Your task to perform on an android device: Open Yahoo.com Image 0: 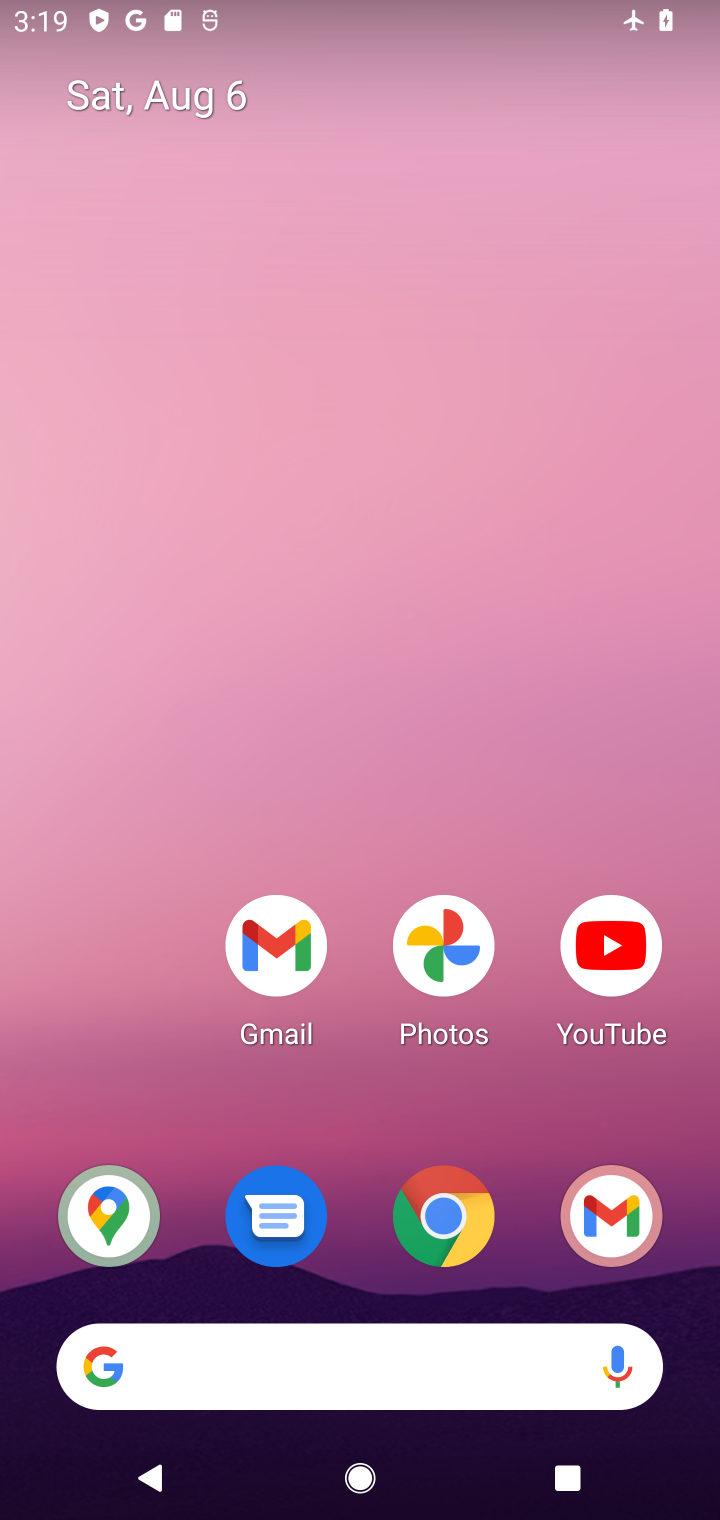
Step 0: click (444, 1215)
Your task to perform on an android device: Open Yahoo.com Image 1: 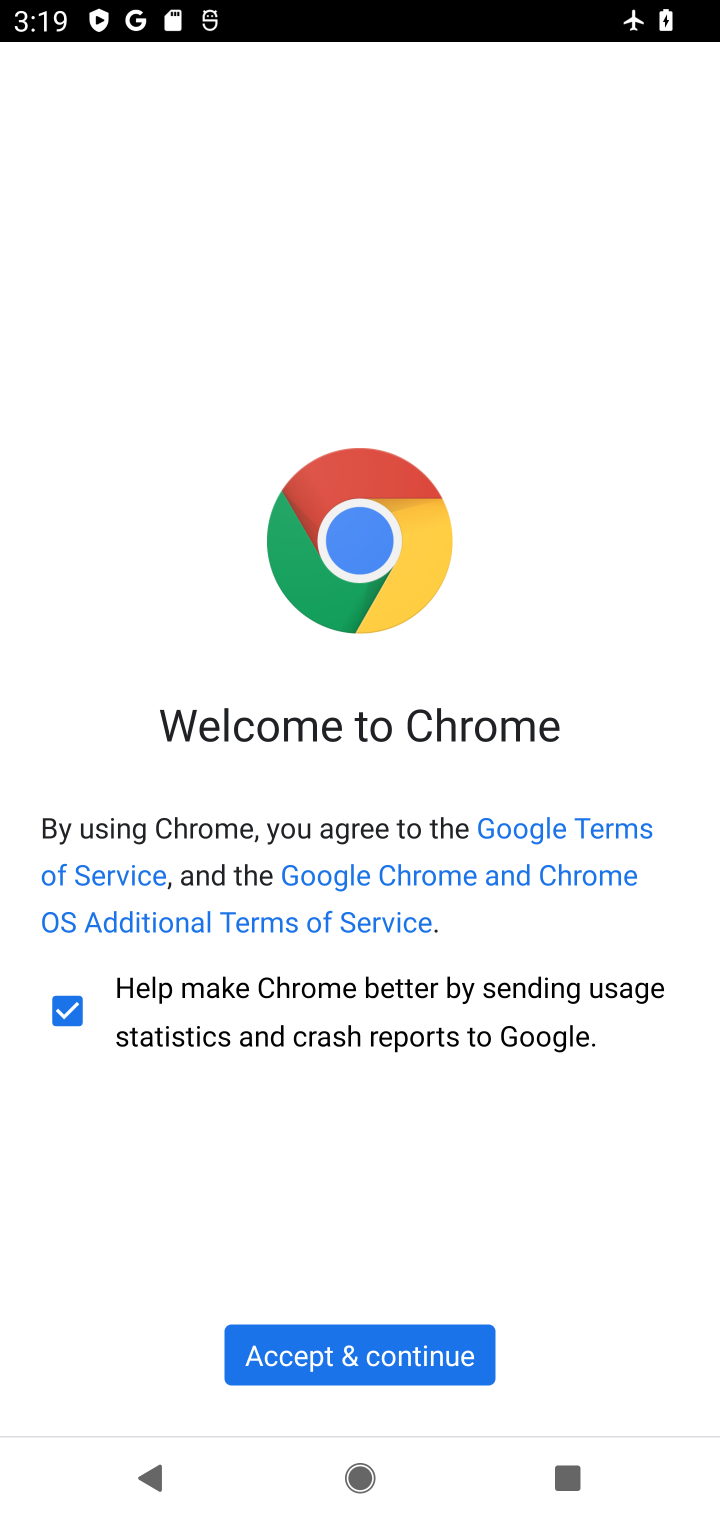
Step 1: click (422, 1362)
Your task to perform on an android device: Open Yahoo.com Image 2: 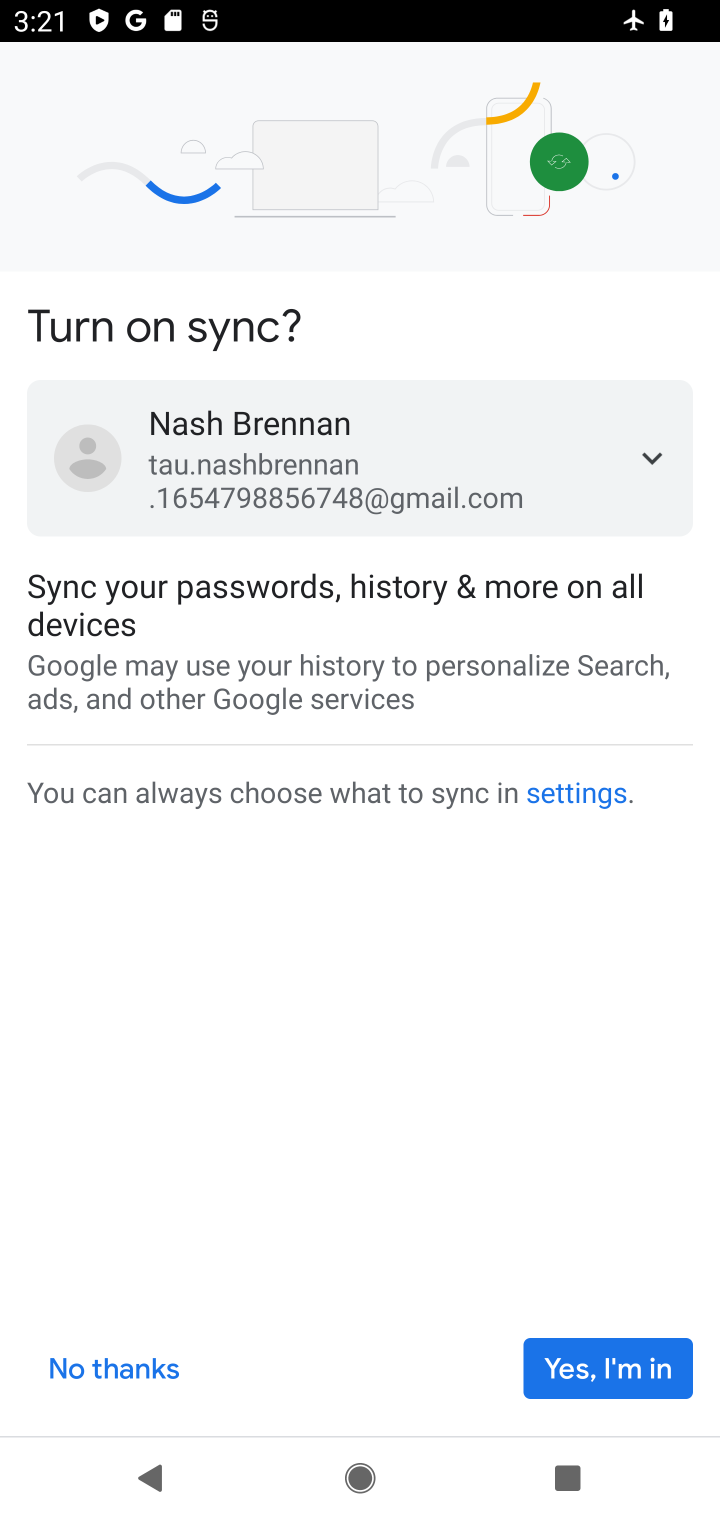
Step 2: click (587, 1390)
Your task to perform on an android device: Open Yahoo.com Image 3: 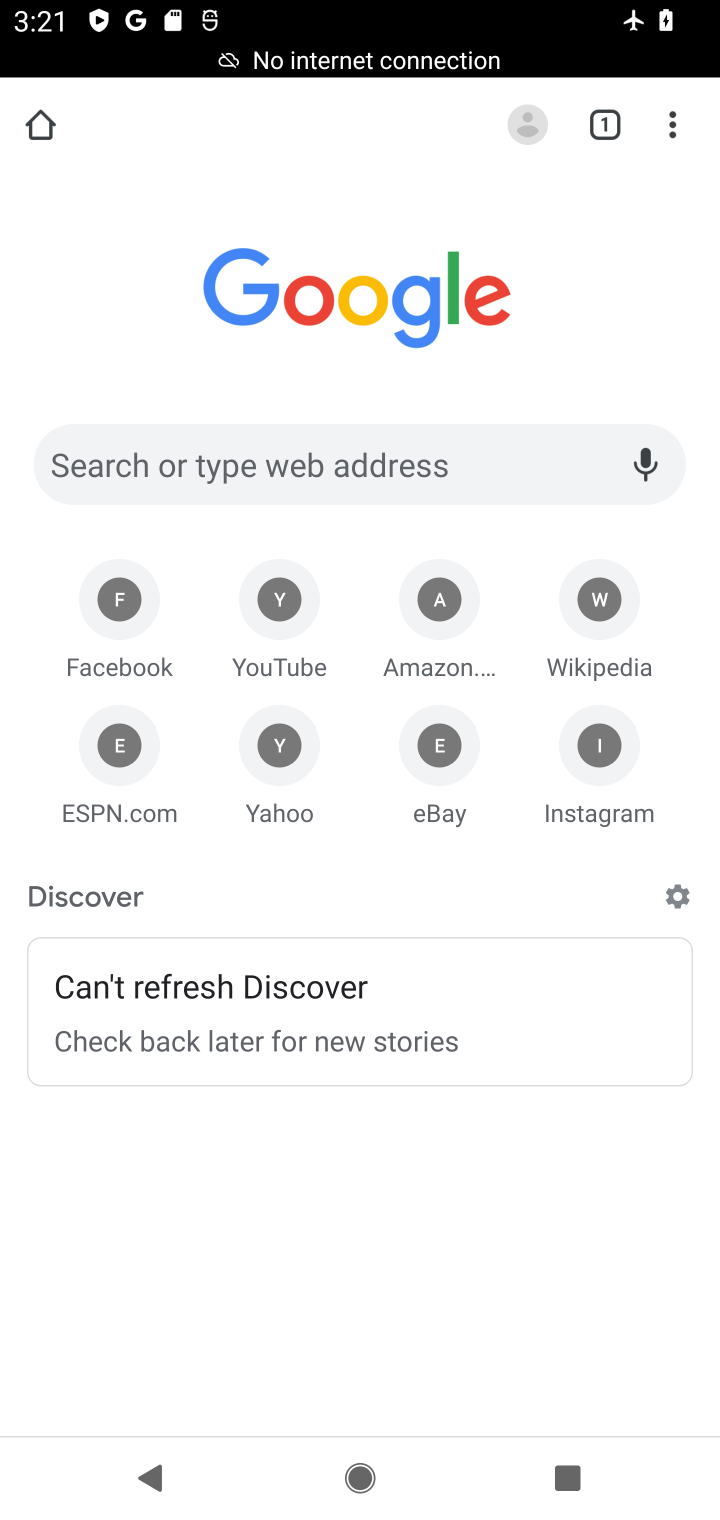
Step 3: click (306, 761)
Your task to perform on an android device: Open Yahoo.com Image 4: 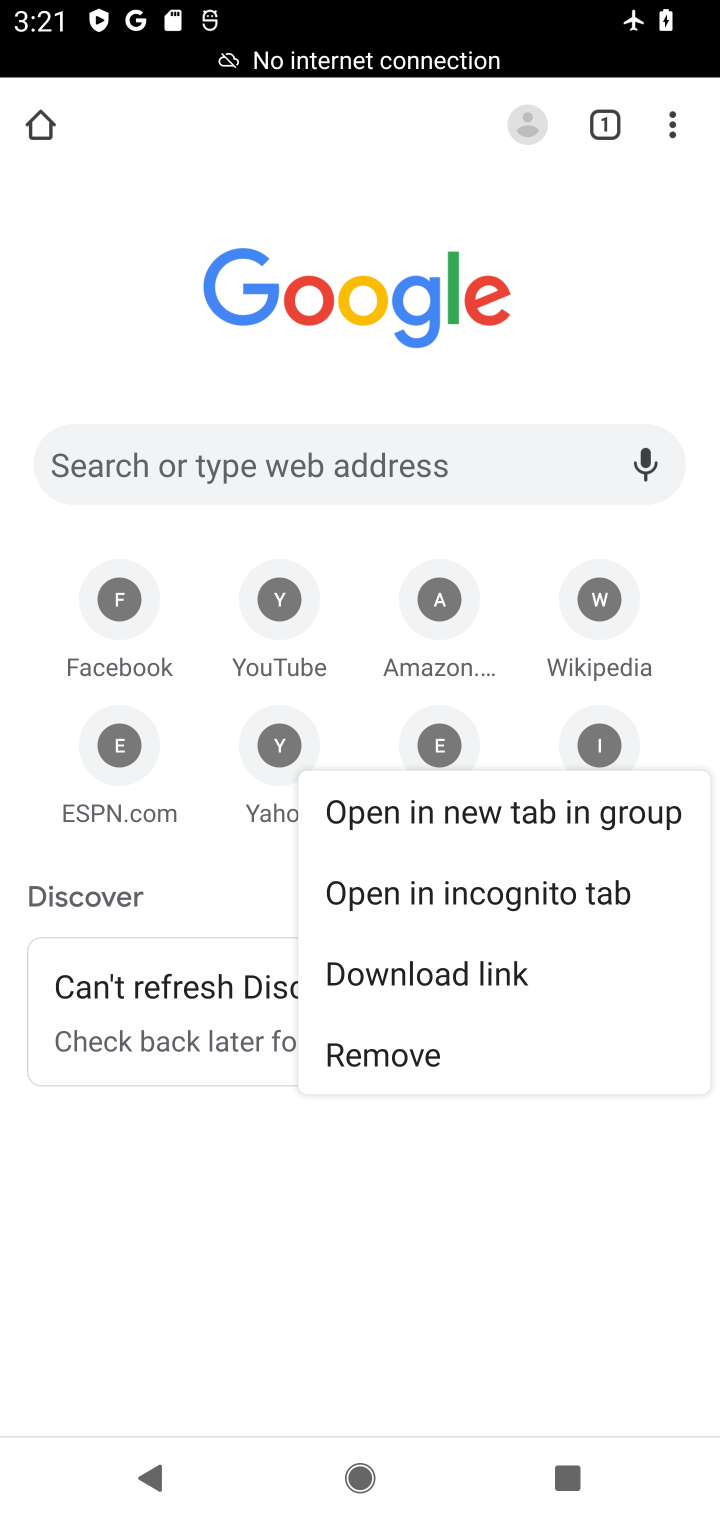
Step 4: click (284, 757)
Your task to perform on an android device: Open Yahoo.com Image 5: 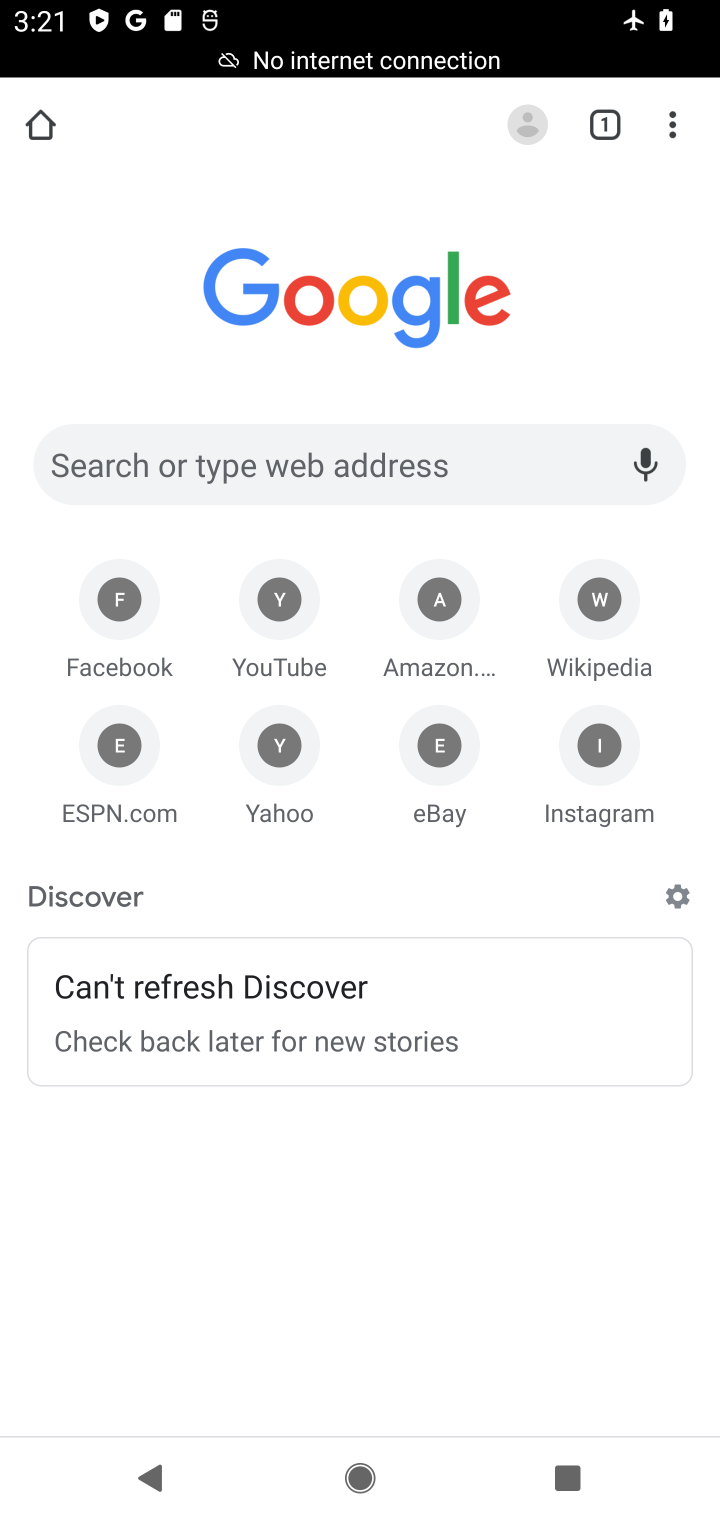
Step 5: click (266, 765)
Your task to perform on an android device: Open Yahoo.com Image 6: 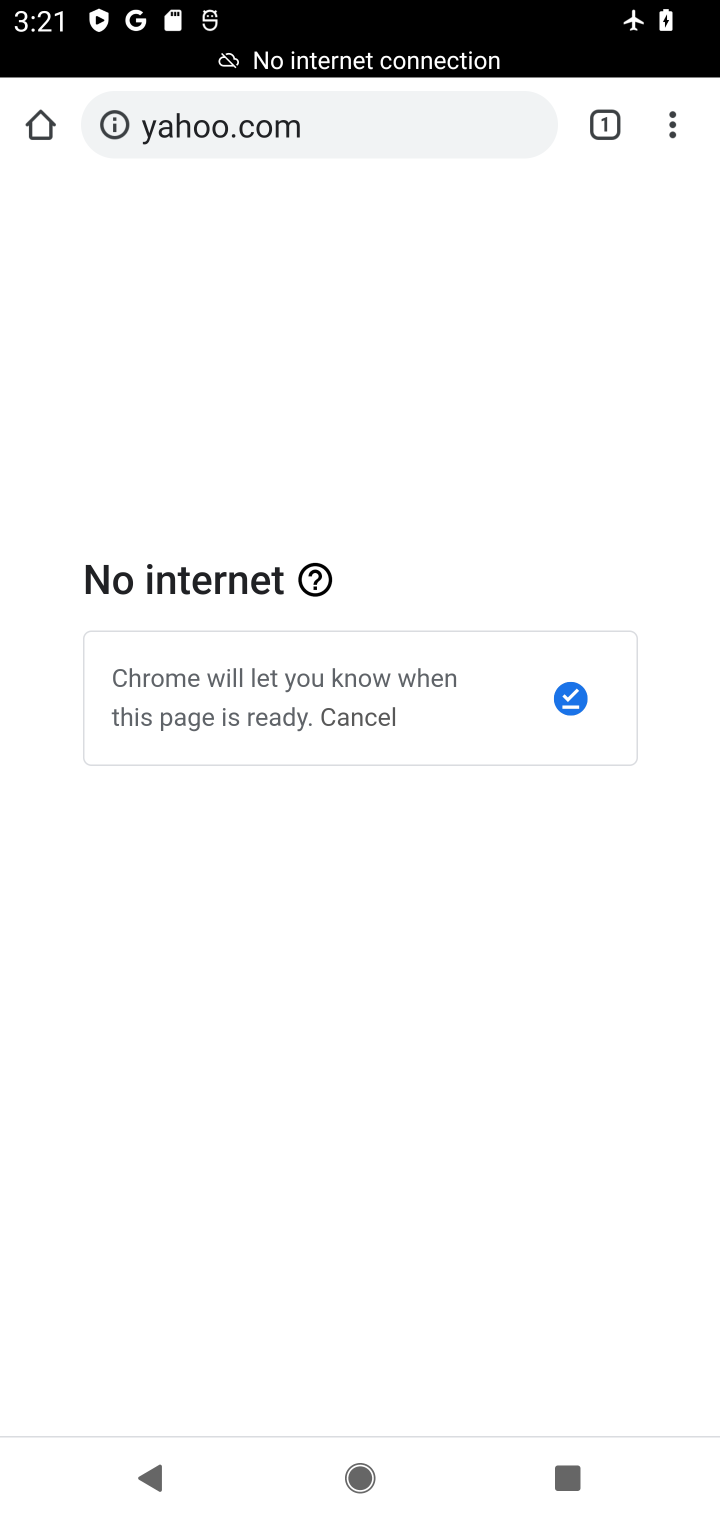
Step 6: task complete